Your task to perform on an android device: Do I have any events this weekend? Image 0: 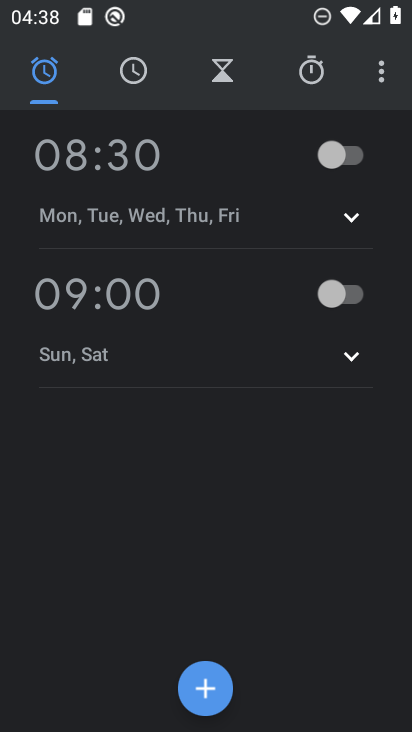
Step 0: press home button
Your task to perform on an android device: Do I have any events this weekend? Image 1: 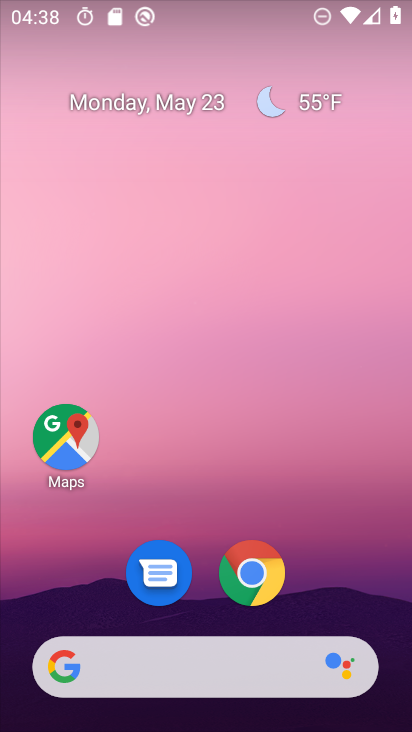
Step 1: drag from (337, 584) to (235, 80)
Your task to perform on an android device: Do I have any events this weekend? Image 2: 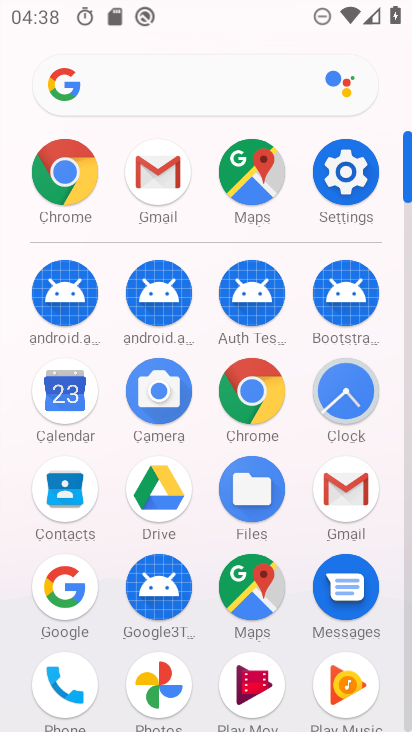
Step 2: click (74, 394)
Your task to perform on an android device: Do I have any events this weekend? Image 3: 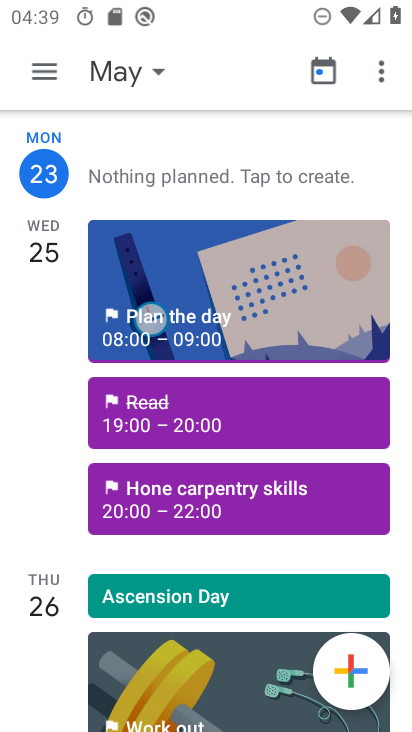
Step 3: click (45, 71)
Your task to perform on an android device: Do I have any events this weekend? Image 4: 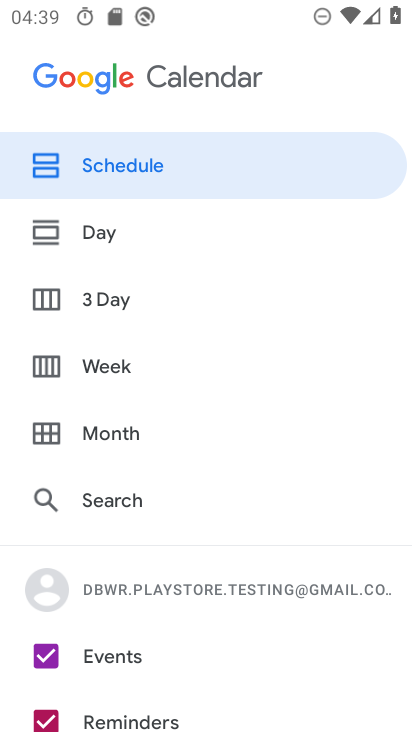
Step 4: click (116, 303)
Your task to perform on an android device: Do I have any events this weekend? Image 5: 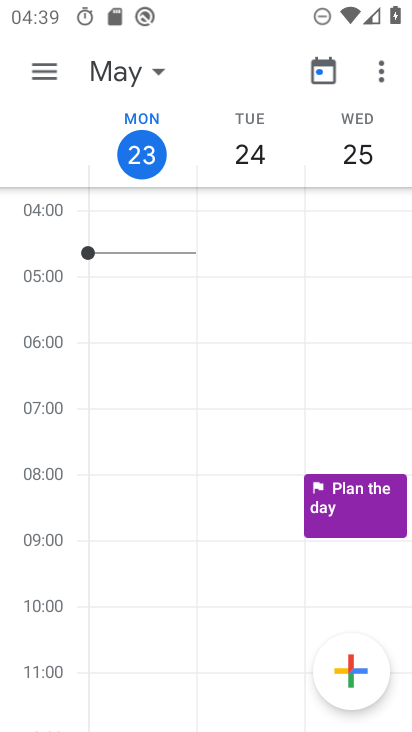
Step 5: task complete